Your task to perform on an android device: How big is a blue whale? Image 0: 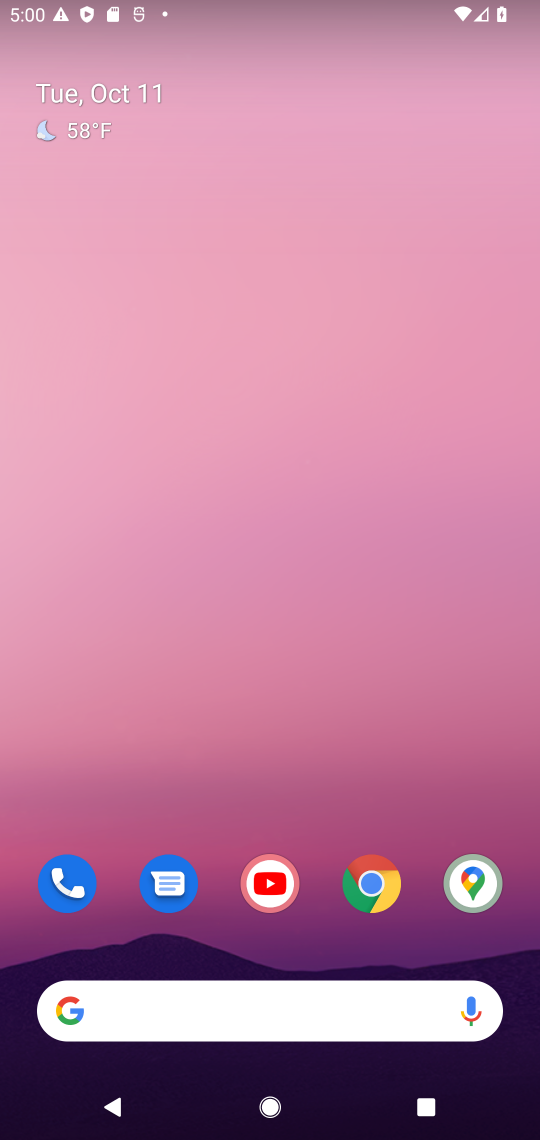
Step 0: drag from (313, 943) to (314, 139)
Your task to perform on an android device: How big is a blue whale? Image 1: 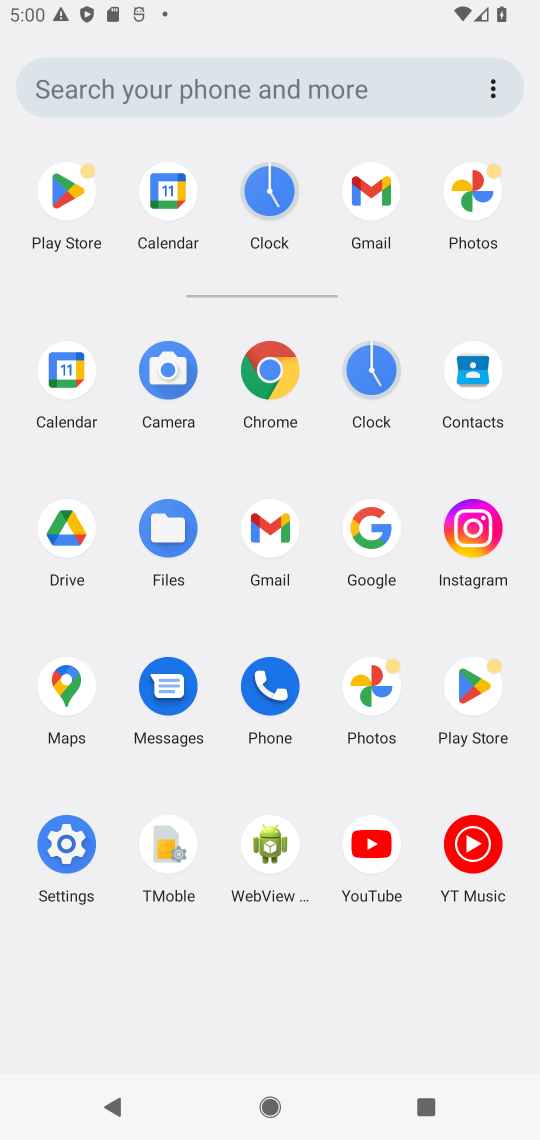
Step 1: click (257, 362)
Your task to perform on an android device: How big is a blue whale? Image 2: 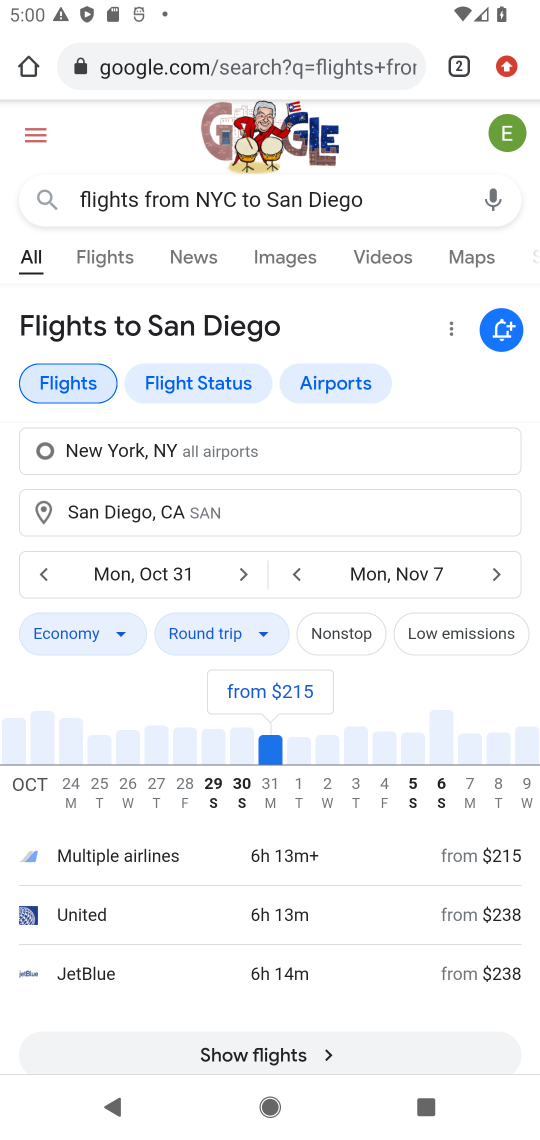
Step 2: click (330, 210)
Your task to perform on an android device: How big is a blue whale? Image 3: 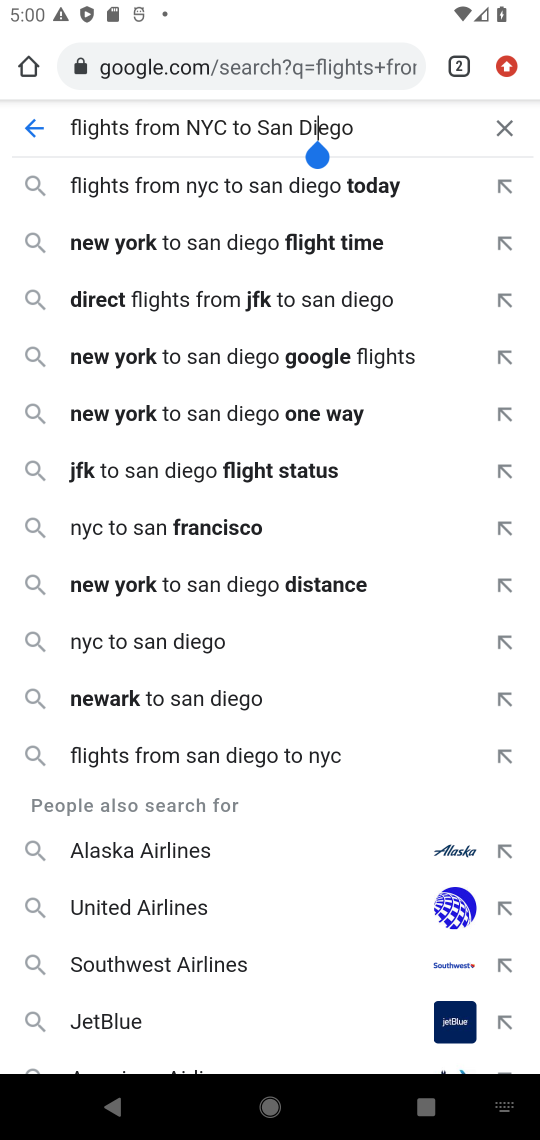
Step 3: click (521, 114)
Your task to perform on an android device: How big is a blue whale? Image 4: 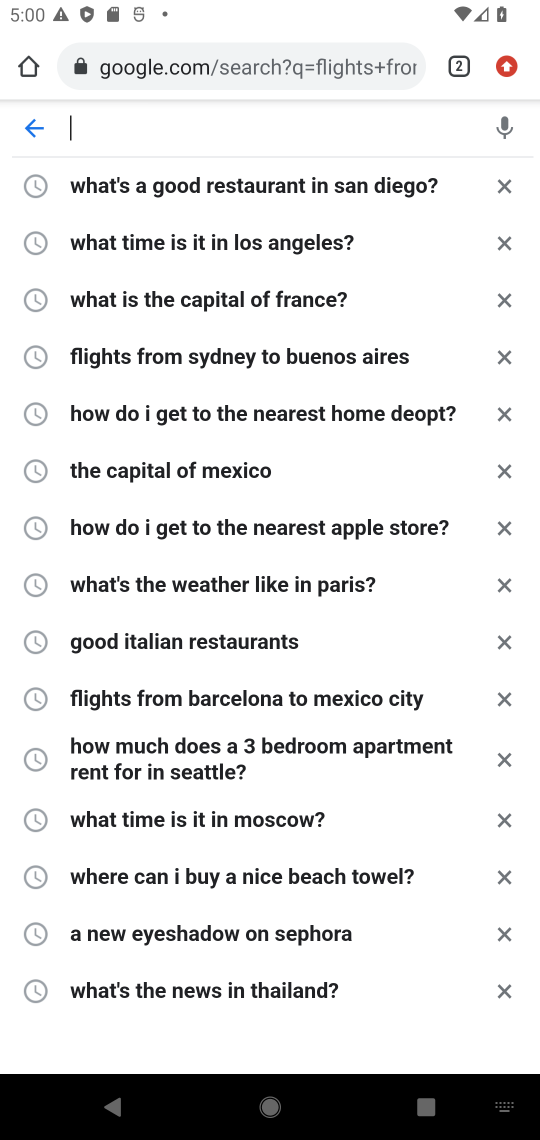
Step 4: type "How big is a blue whale?"
Your task to perform on an android device: How big is a blue whale? Image 5: 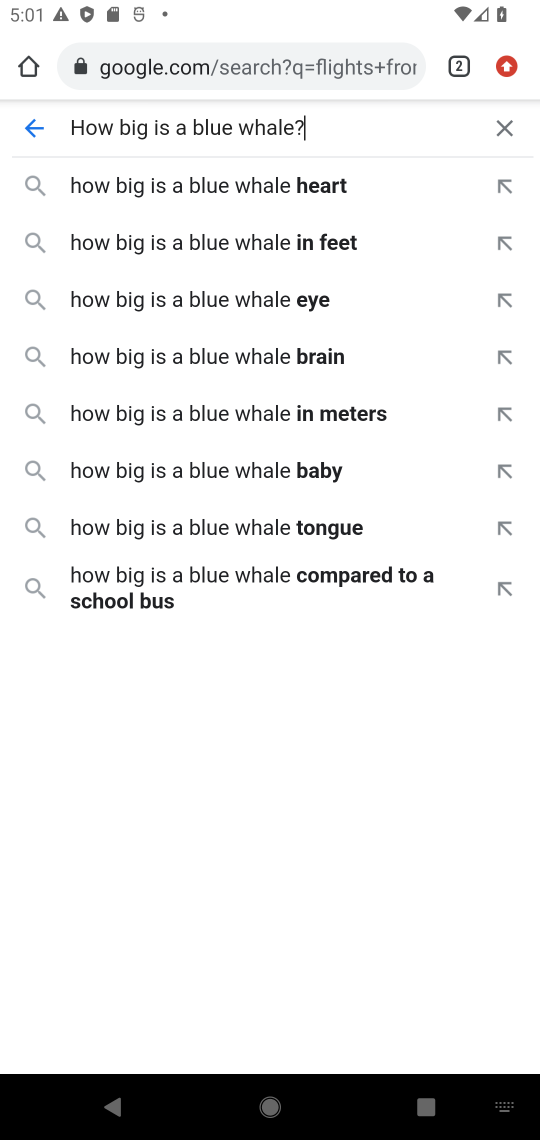
Step 5: press enter
Your task to perform on an android device: How big is a blue whale? Image 6: 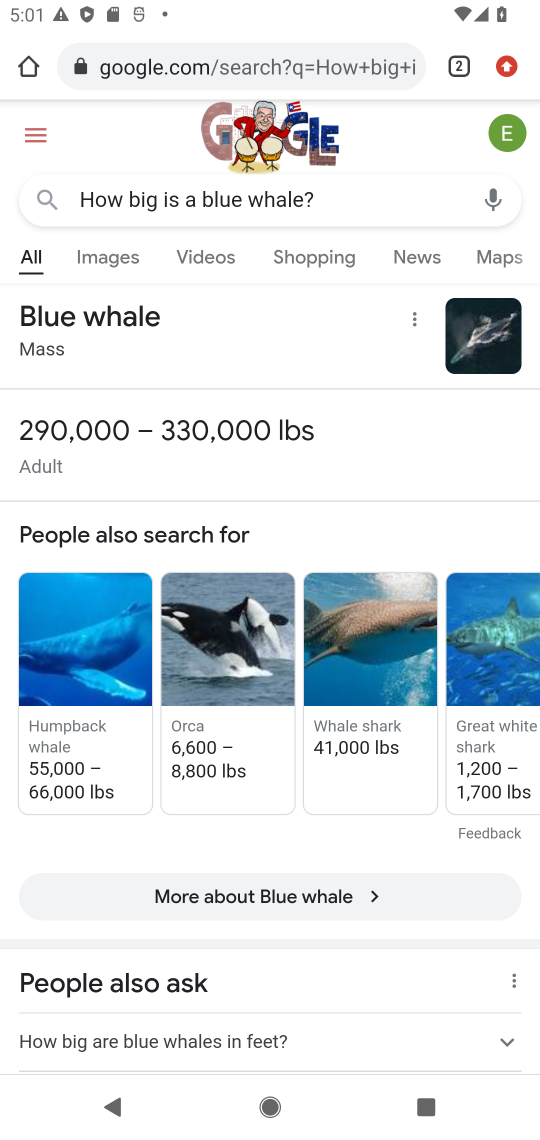
Step 6: task complete